Your task to perform on an android device: open app "Duolingo: language lessons" (install if not already installed) and go to login screen Image 0: 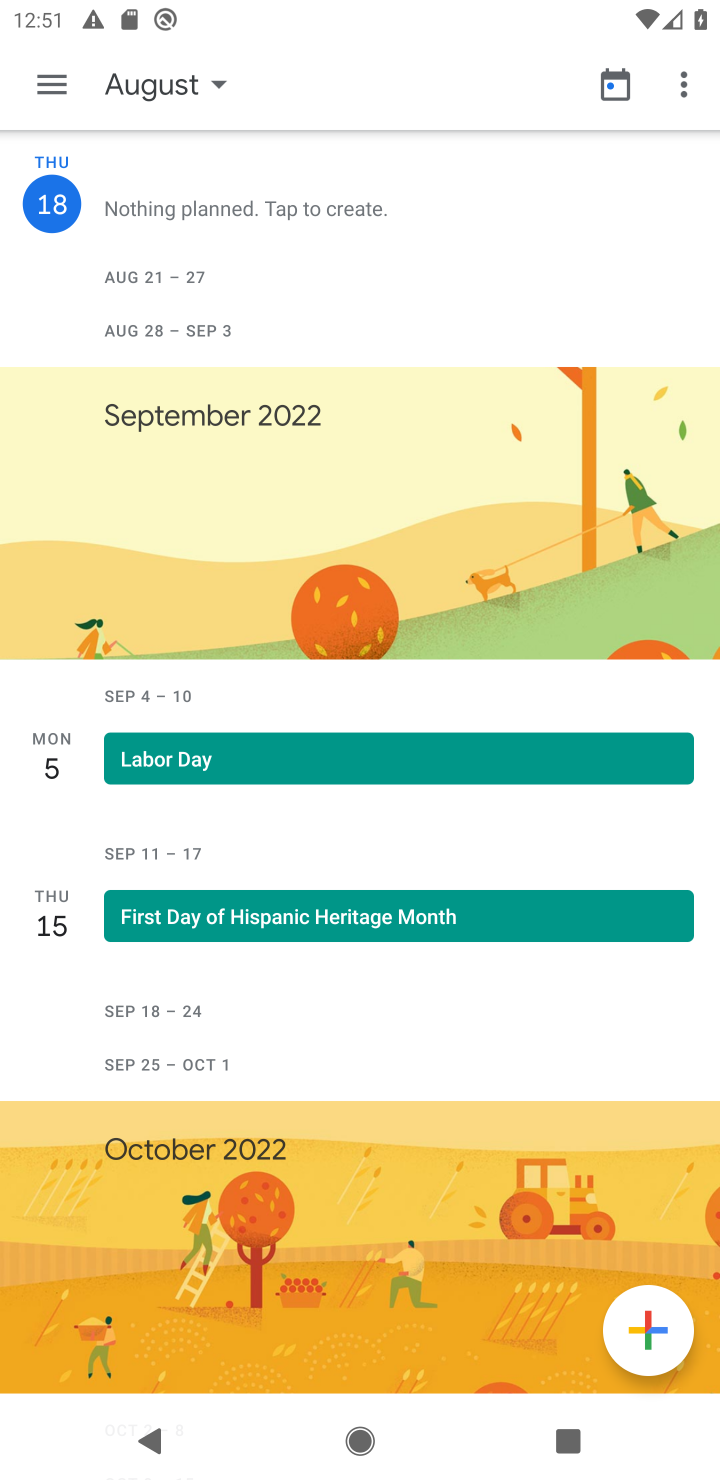
Step 0: press back button
Your task to perform on an android device: open app "Duolingo: language lessons" (install if not already installed) and go to login screen Image 1: 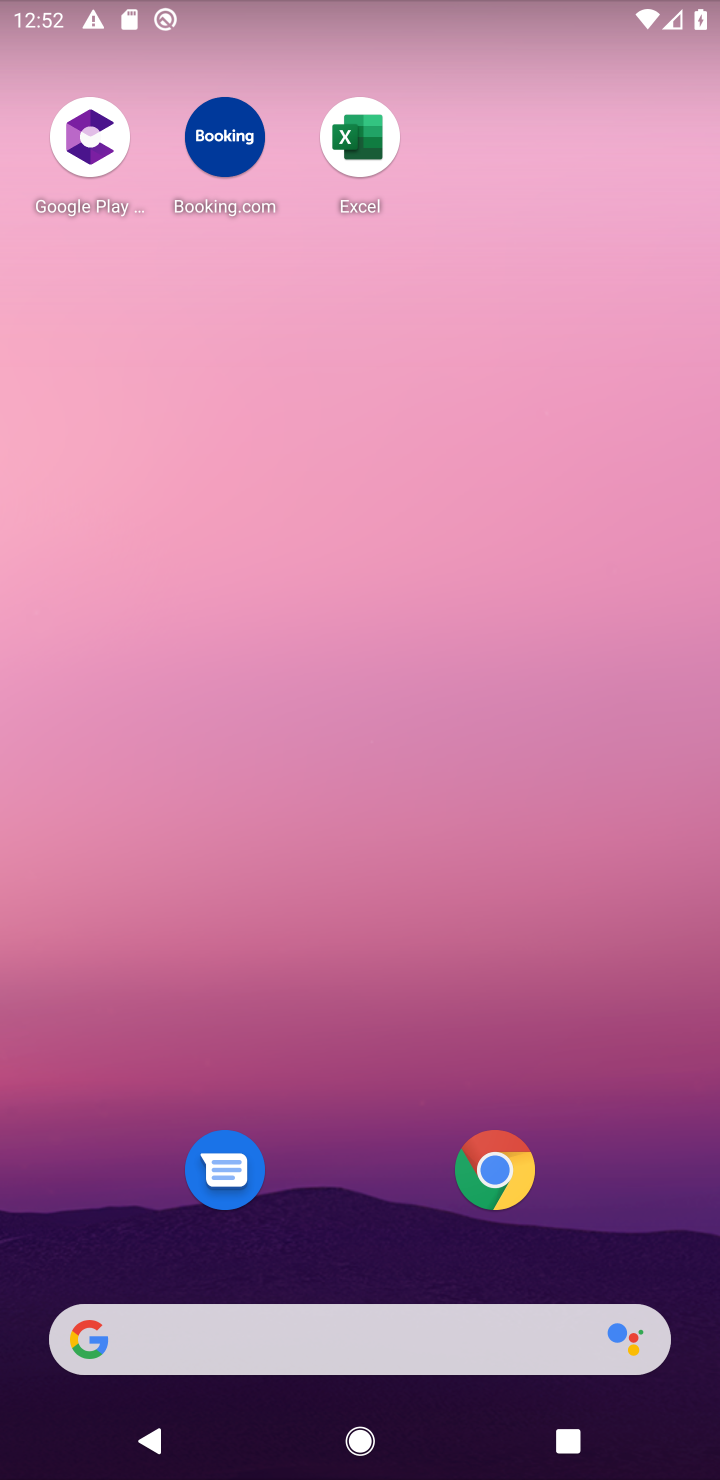
Step 1: press home button
Your task to perform on an android device: open app "Duolingo: language lessons" (install if not already installed) and go to login screen Image 2: 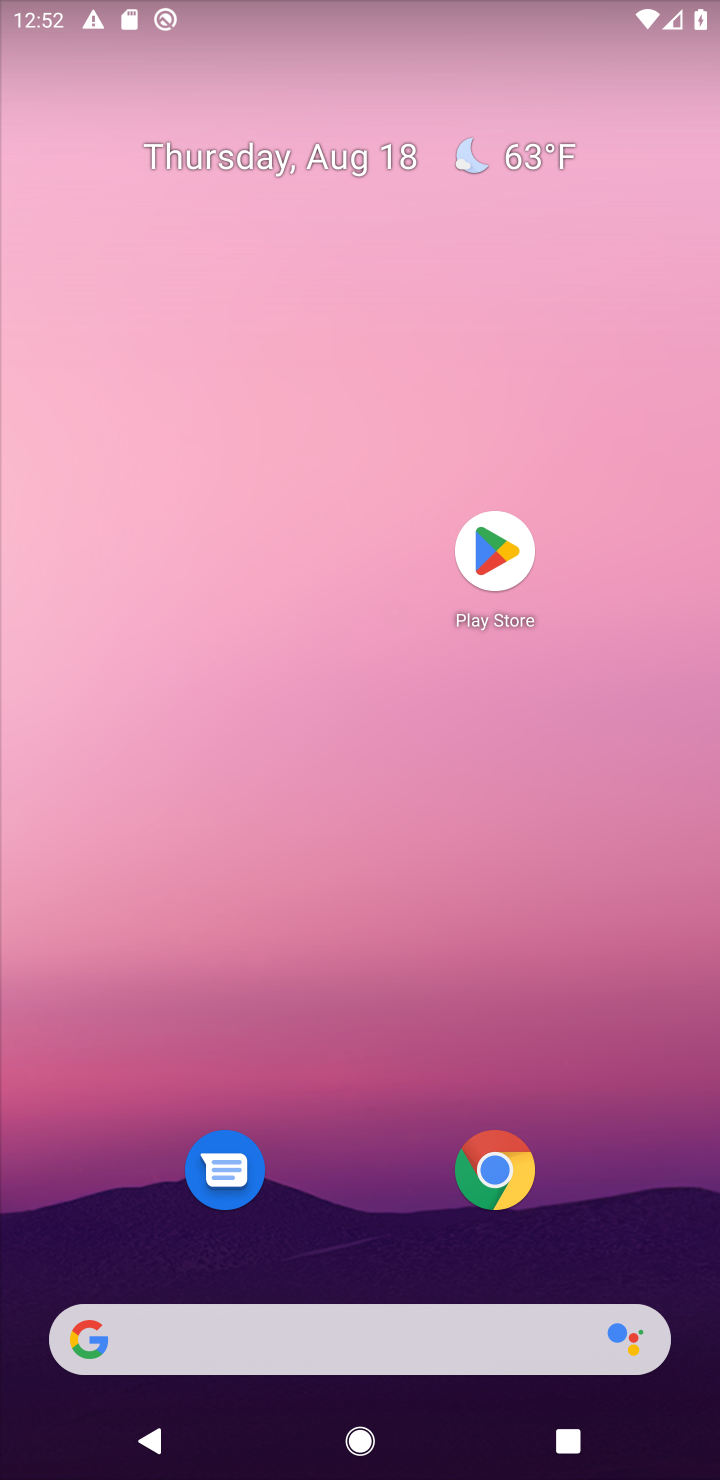
Step 2: click (482, 555)
Your task to perform on an android device: open app "Duolingo: language lessons" (install if not already installed) and go to login screen Image 3: 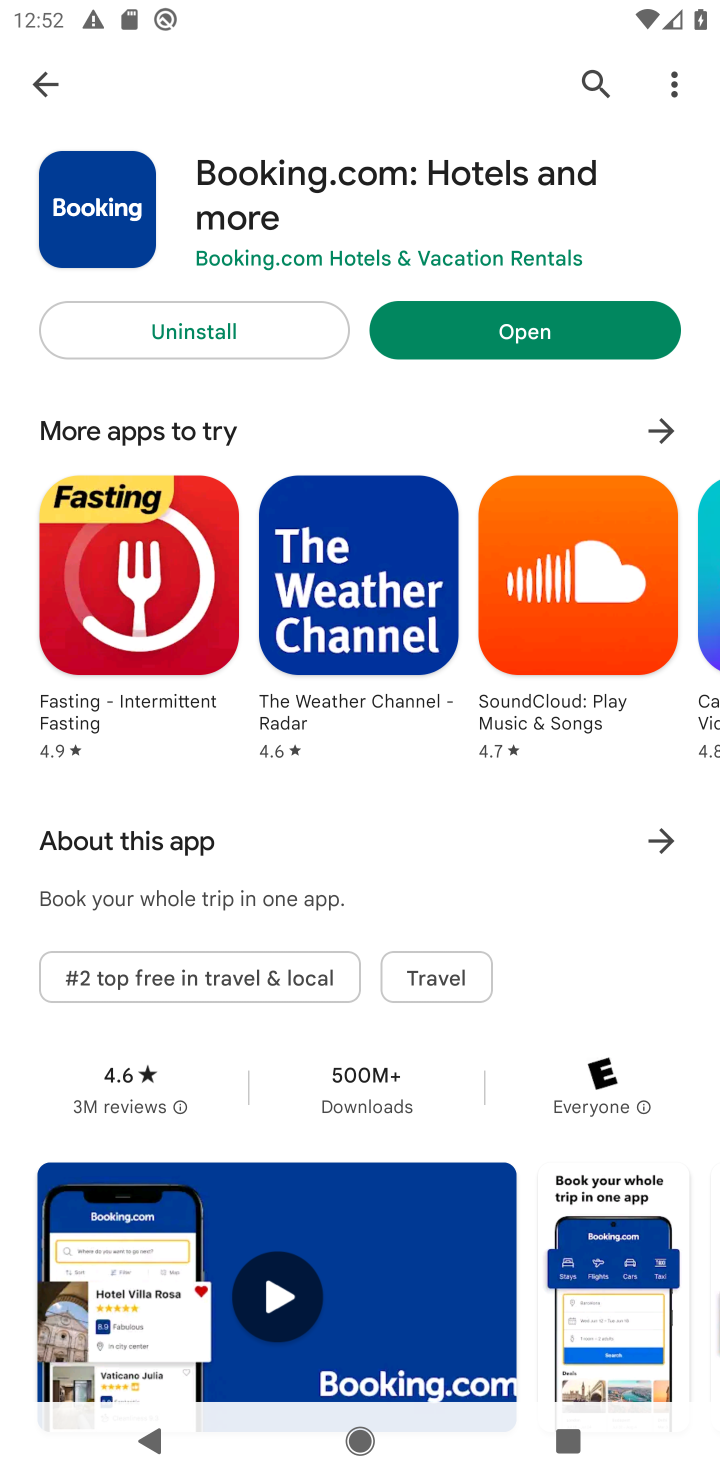
Step 3: click (591, 80)
Your task to perform on an android device: open app "Duolingo: language lessons" (install if not already installed) and go to login screen Image 4: 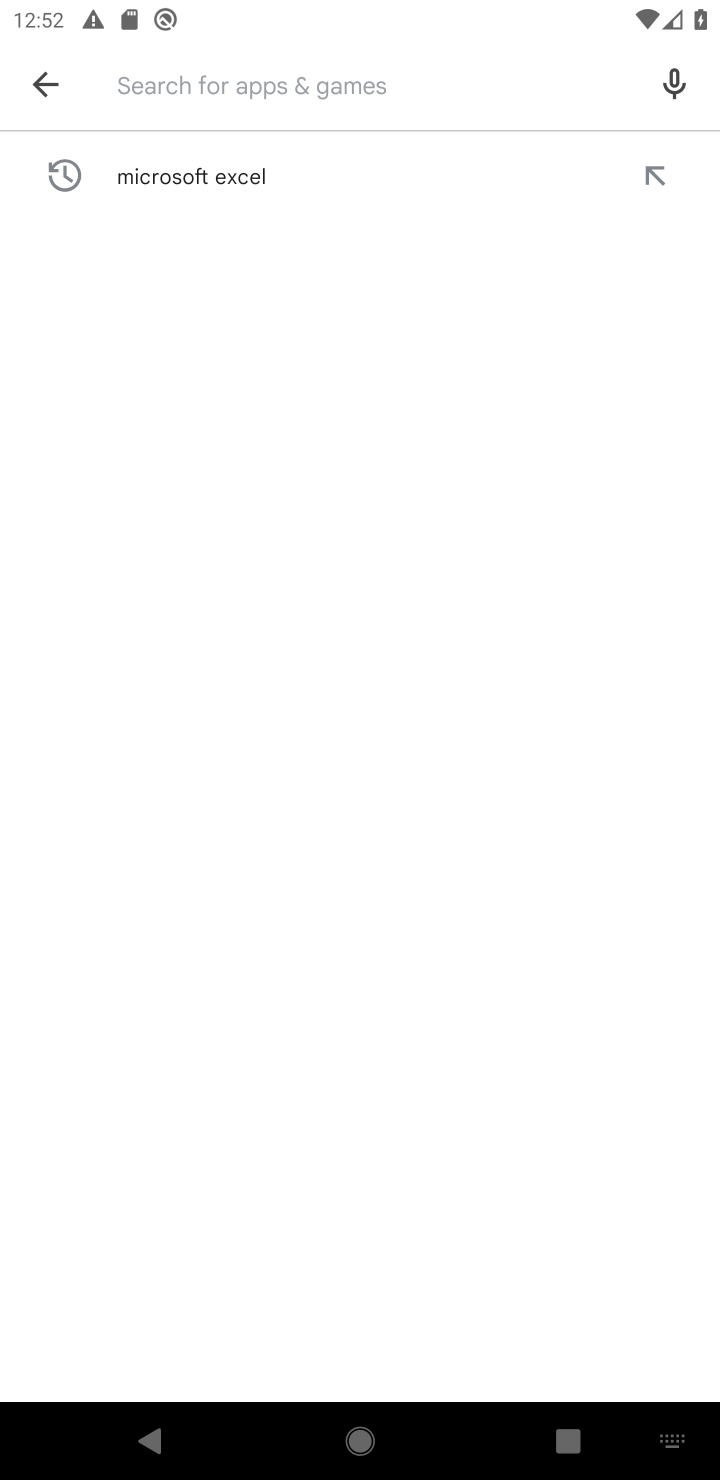
Step 4: type "Duolingo: language lessons"
Your task to perform on an android device: open app "Duolingo: language lessons" (install if not already installed) and go to login screen Image 5: 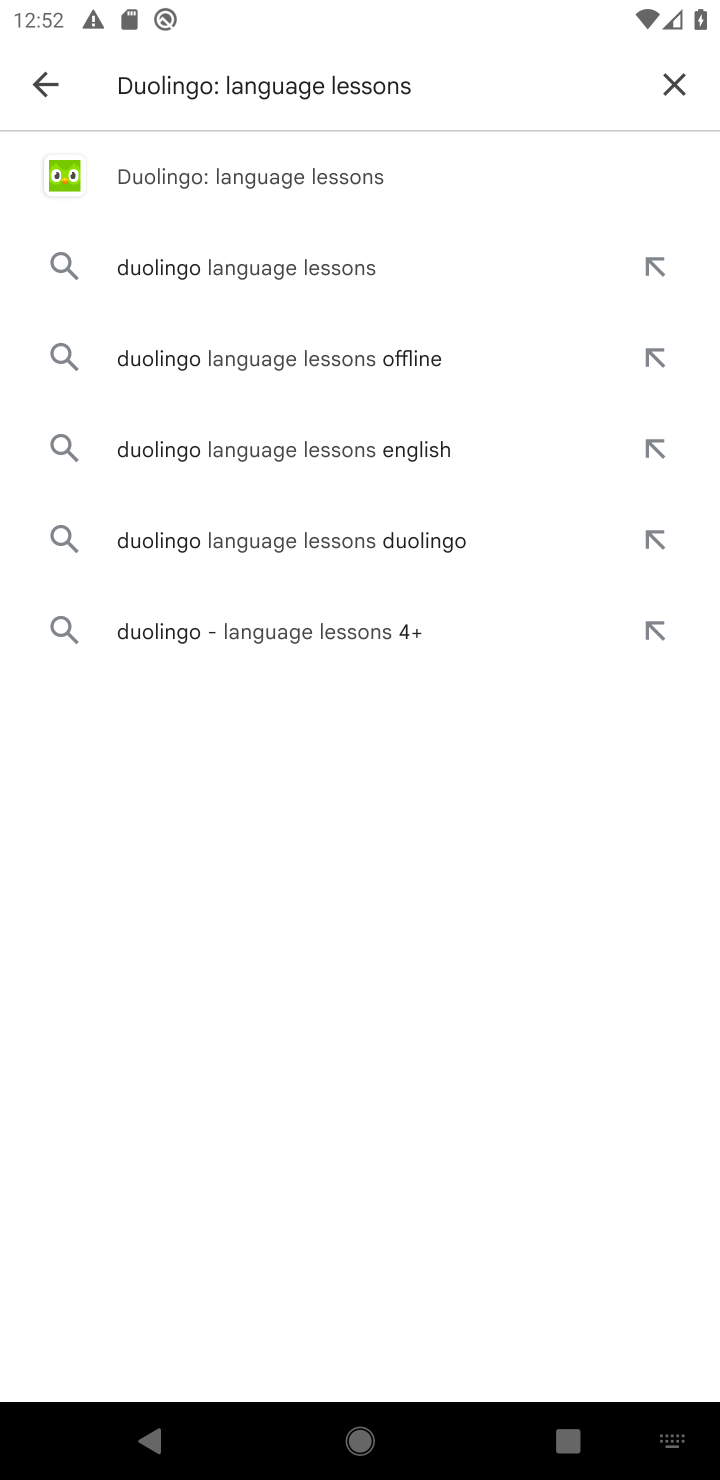
Step 5: click (211, 175)
Your task to perform on an android device: open app "Duolingo: language lessons" (install if not already installed) and go to login screen Image 6: 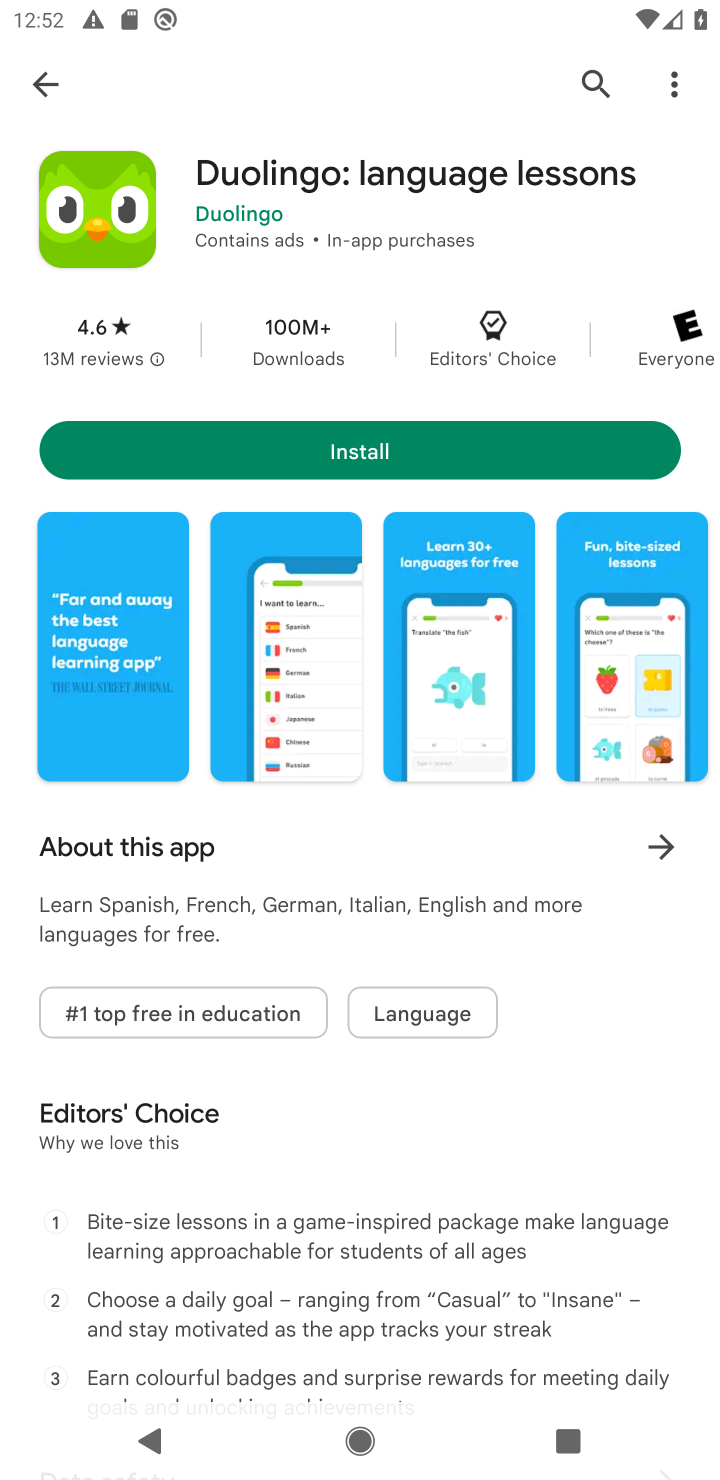
Step 6: click (351, 445)
Your task to perform on an android device: open app "Duolingo: language lessons" (install if not already installed) and go to login screen Image 7: 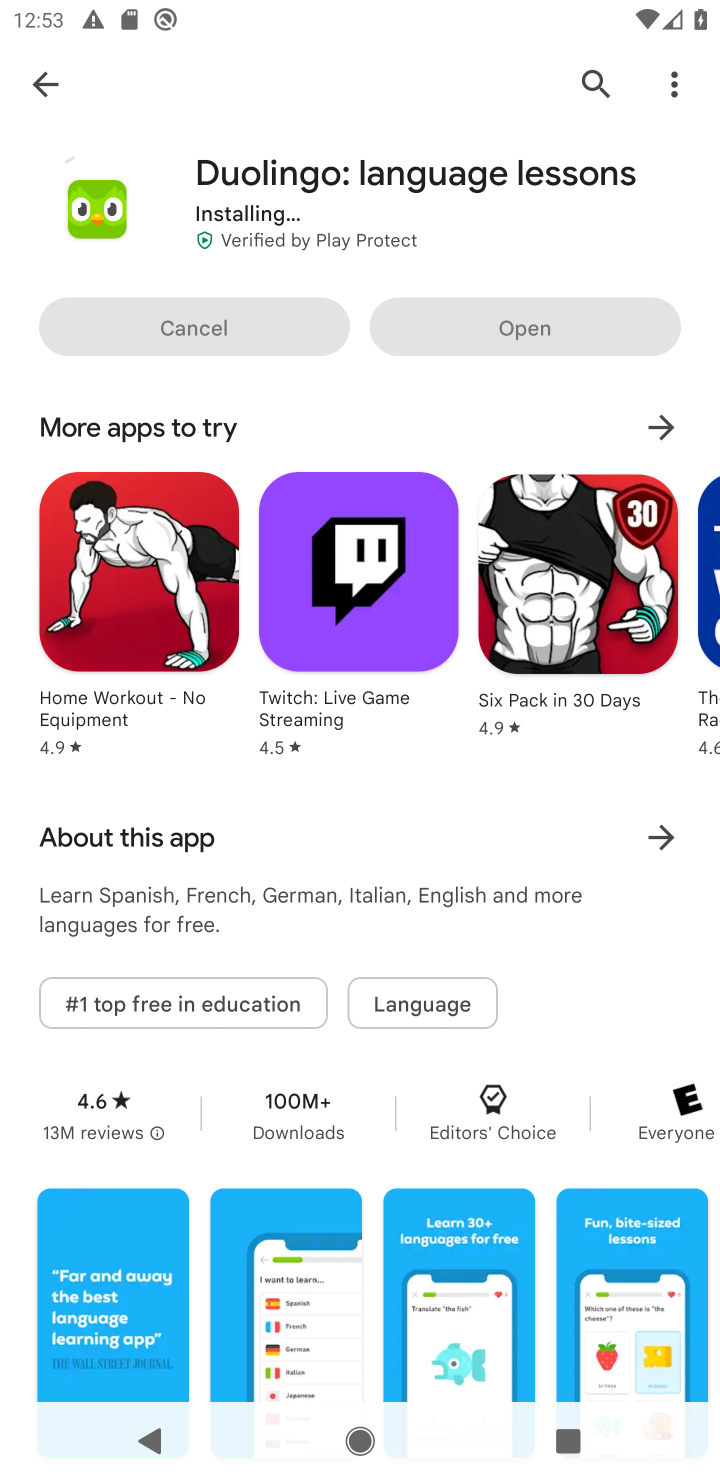
Step 7: click (519, 327)
Your task to perform on an android device: open app "Duolingo: language lessons" (install if not already installed) and go to login screen Image 8: 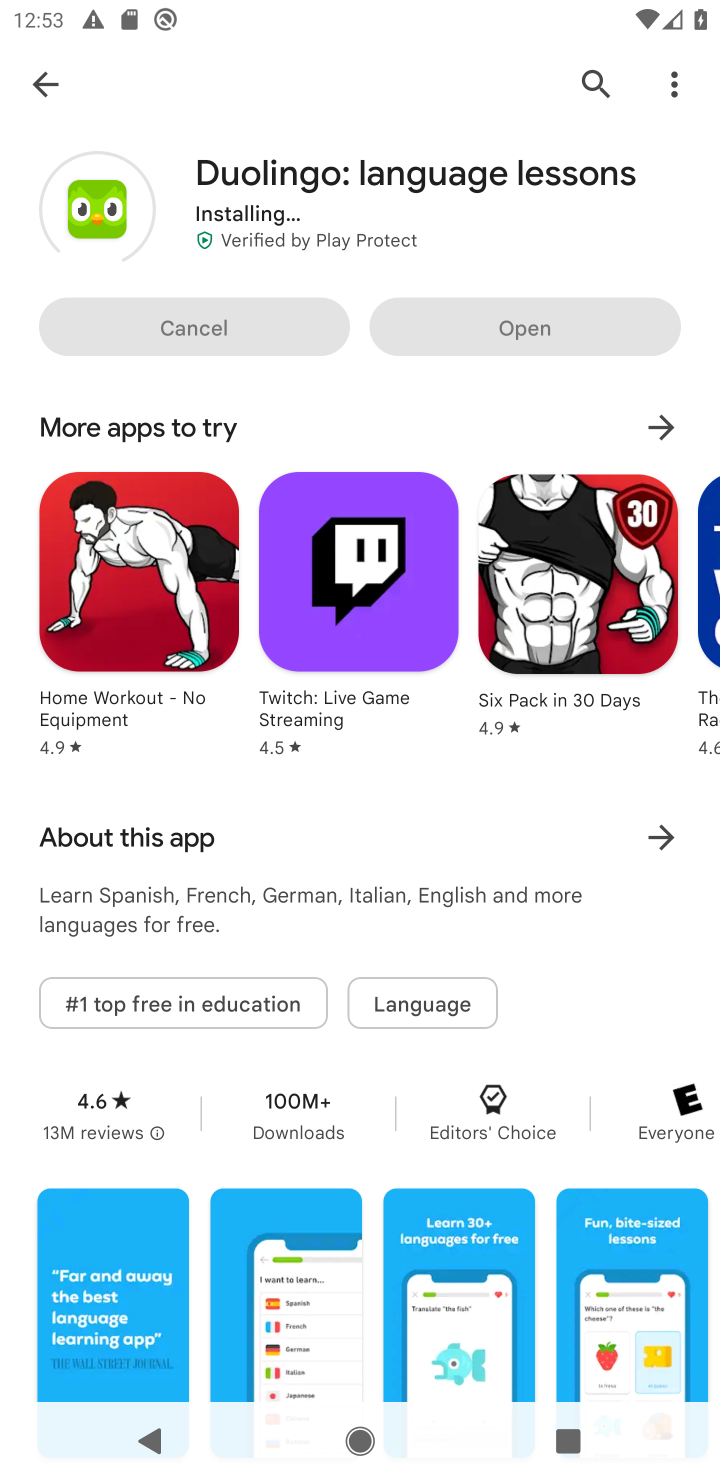
Step 8: press home button
Your task to perform on an android device: open app "Duolingo: language lessons" (install if not already installed) and go to login screen Image 9: 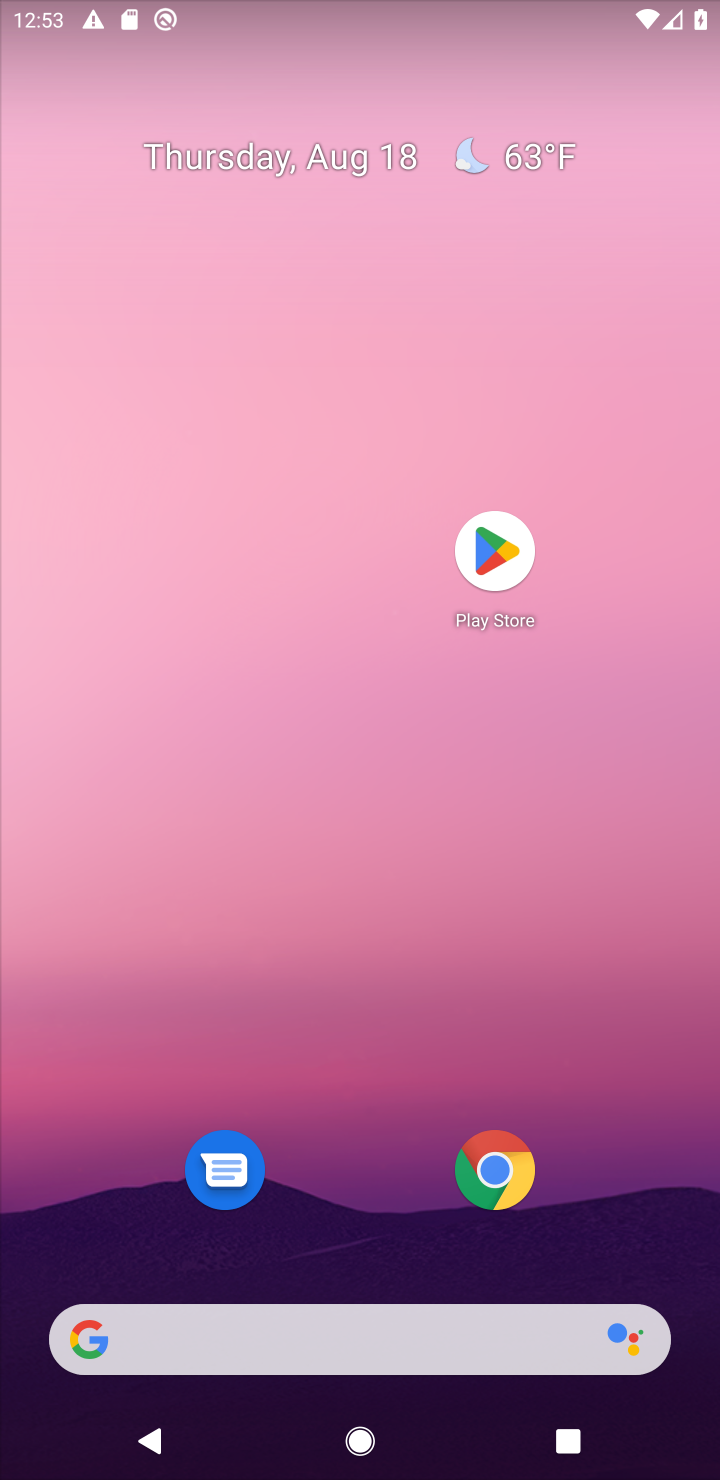
Step 9: click (487, 557)
Your task to perform on an android device: open app "Duolingo: language lessons" (install if not already installed) and go to login screen Image 10: 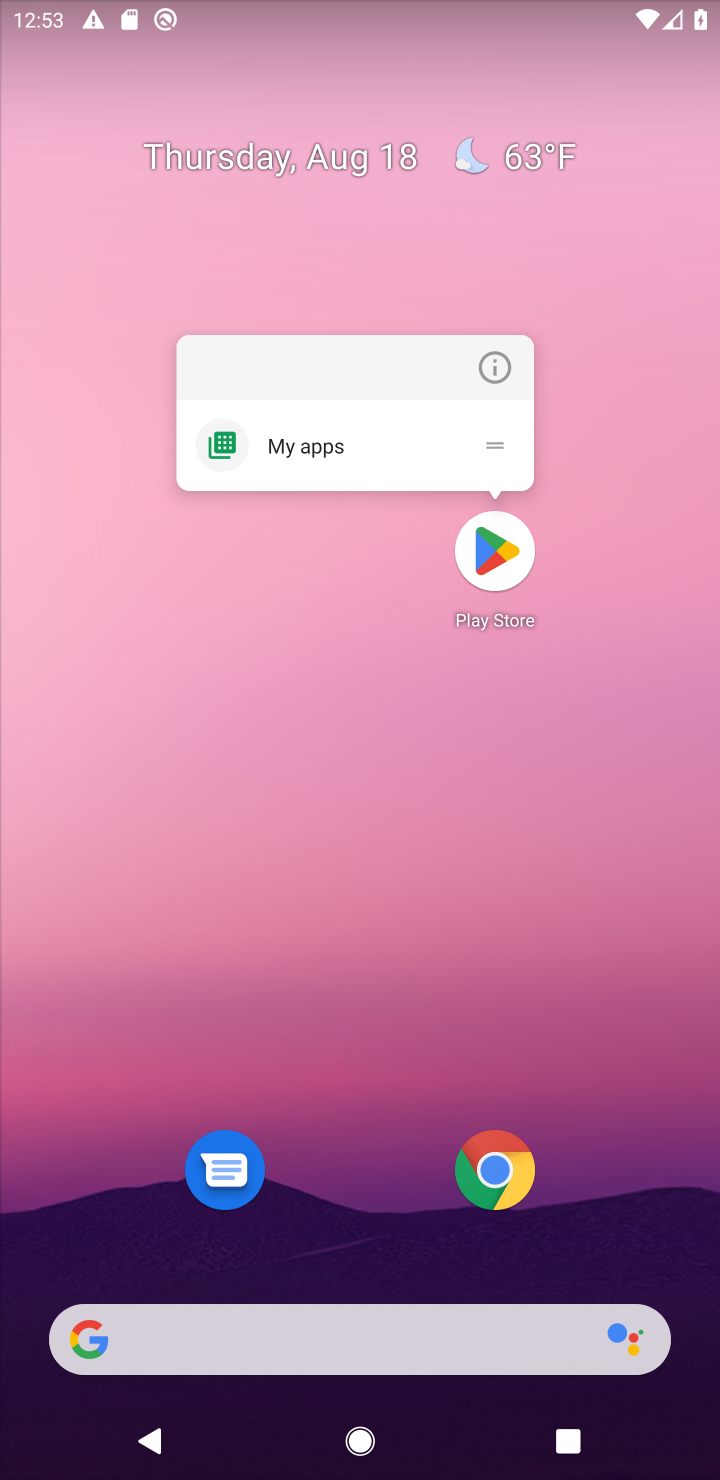
Step 10: click (491, 557)
Your task to perform on an android device: open app "Duolingo: language lessons" (install if not already installed) and go to login screen Image 11: 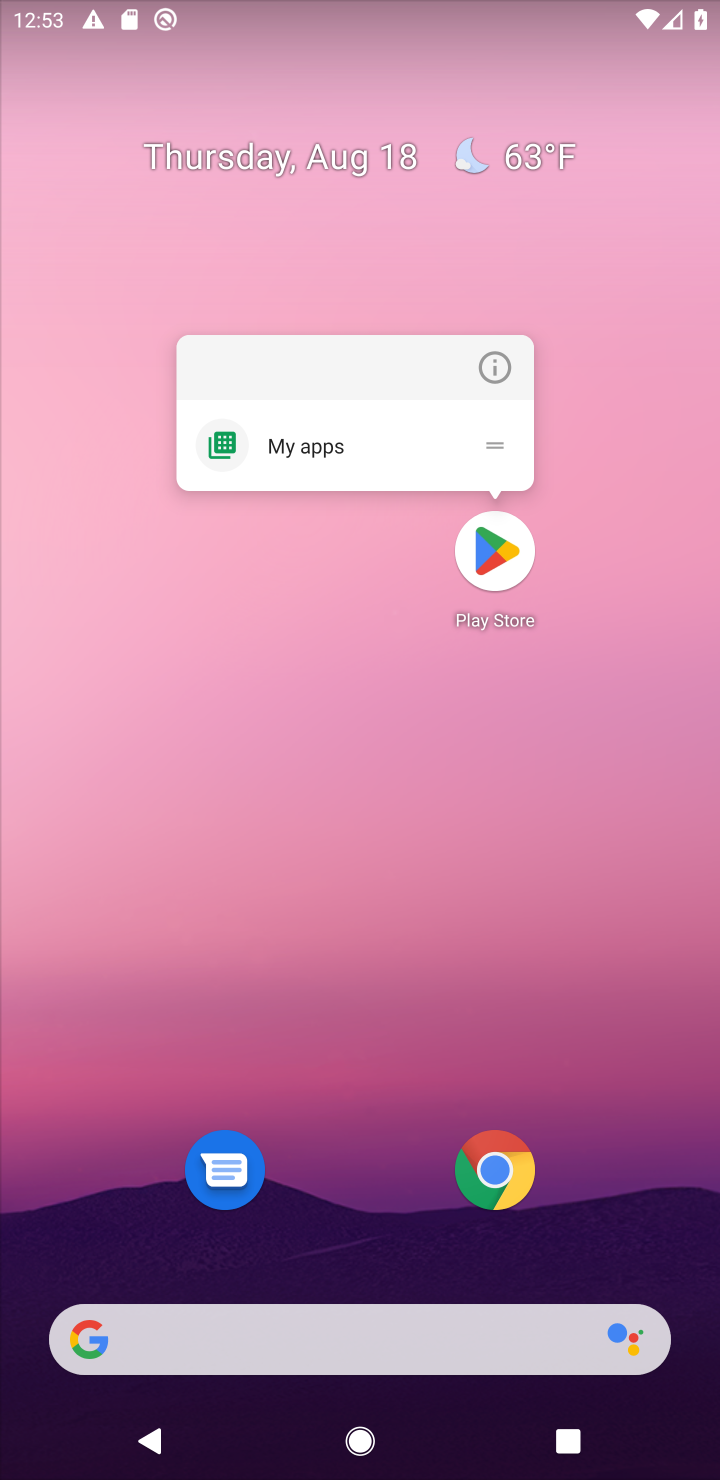
Step 11: click (492, 557)
Your task to perform on an android device: open app "Duolingo: language lessons" (install if not already installed) and go to login screen Image 12: 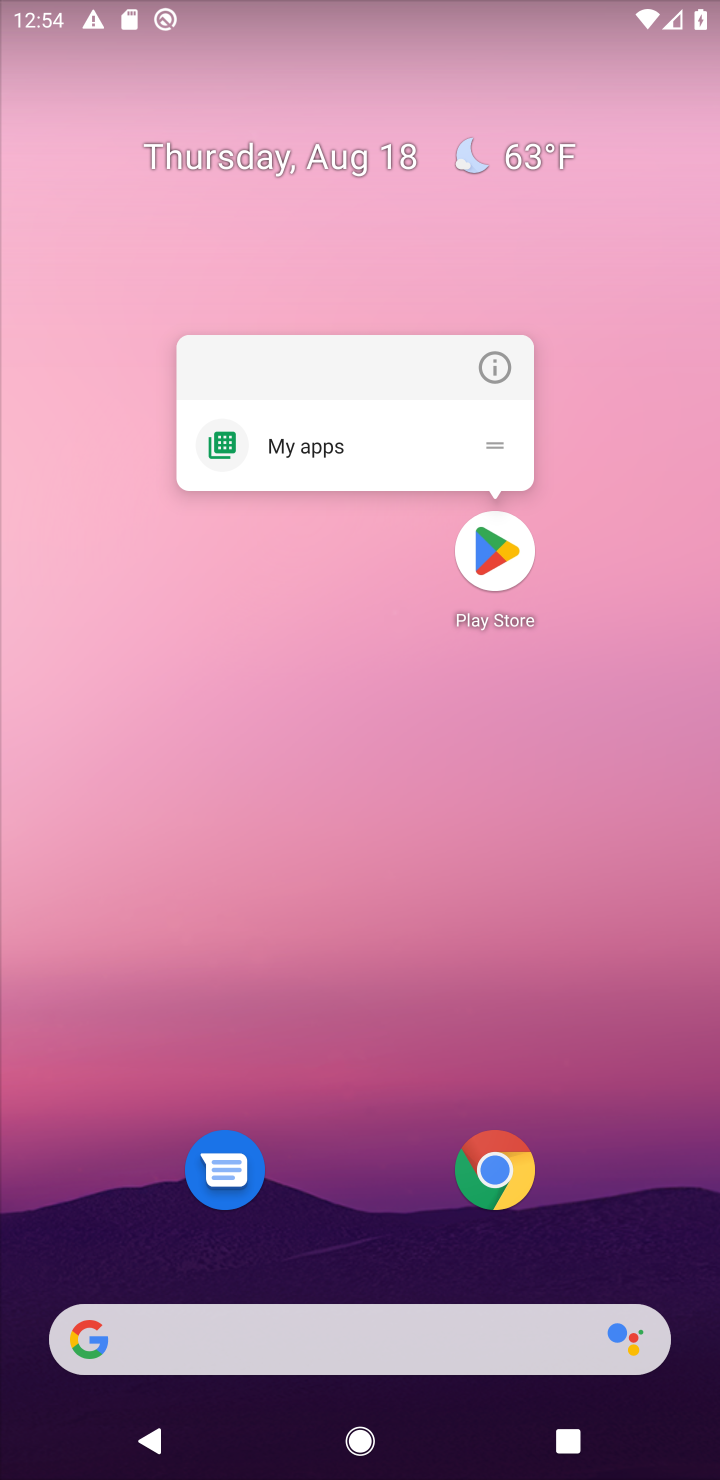
Step 12: click (492, 557)
Your task to perform on an android device: open app "Duolingo: language lessons" (install if not already installed) and go to login screen Image 13: 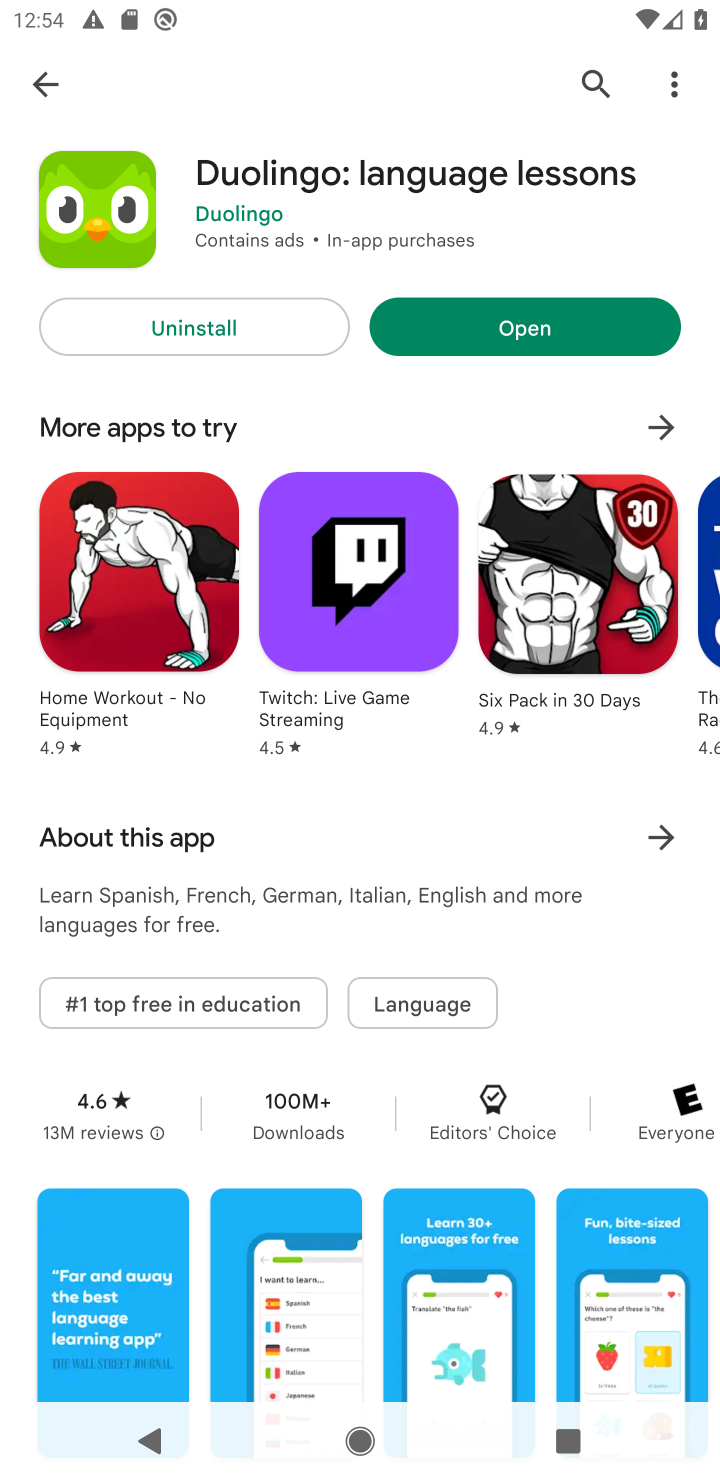
Step 13: click (511, 327)
Your task to perform on an android device: open app "Duolingo: language lessons" (install if not already installed) and go to login screen Image 14: 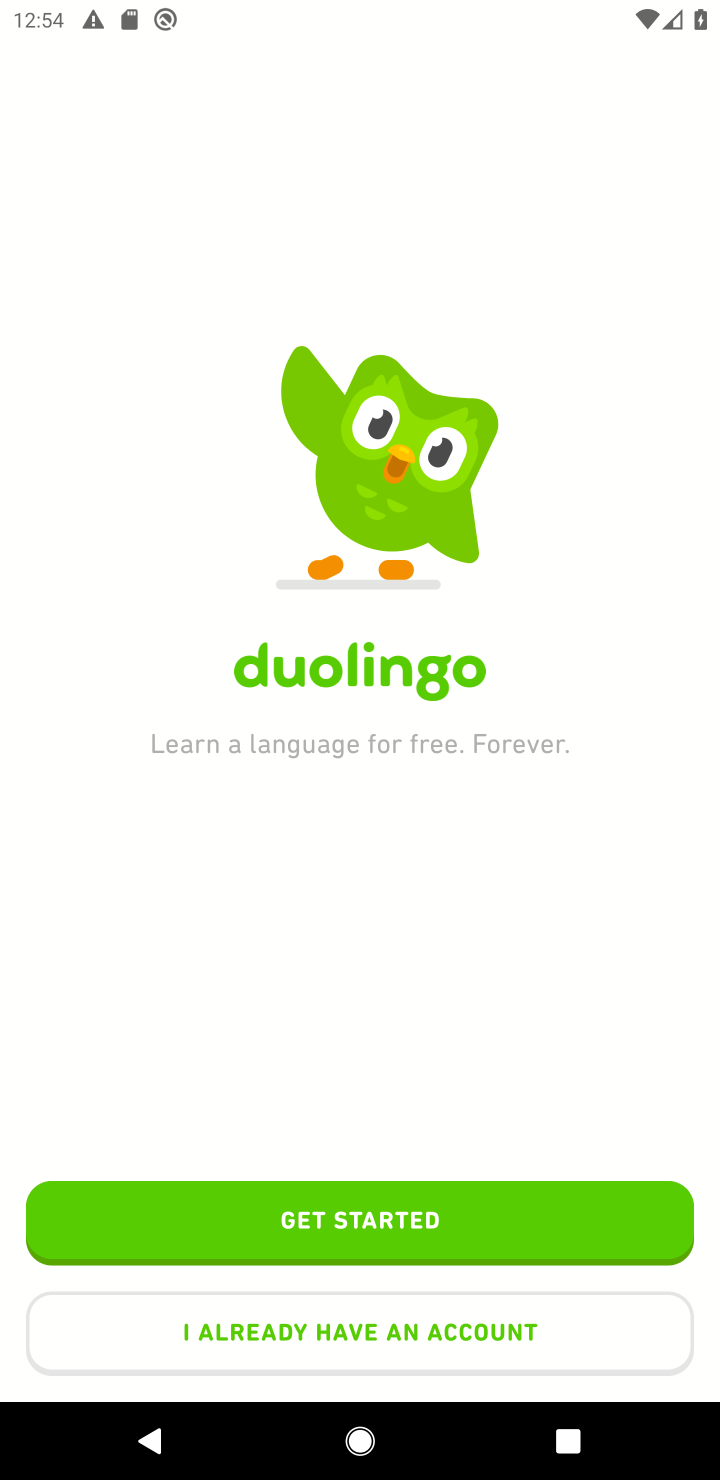
Step 14: task complete